Your task to perform on an android device: toggle show notifications on the lock screen Image 0: 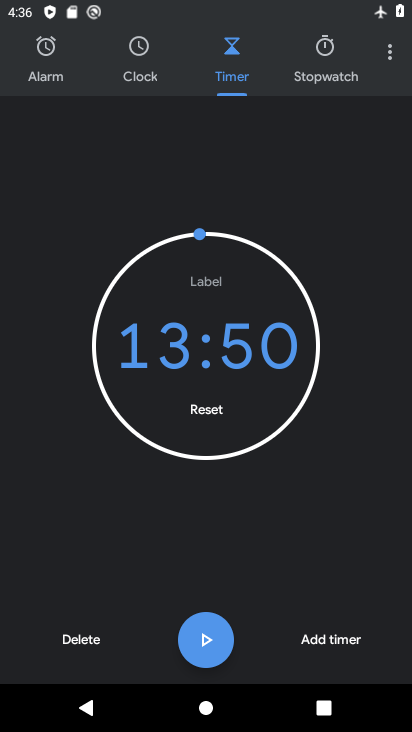
Step 0: press back button
Your task to perform on an android device: toggle show notifications on the lock screen Image 1: 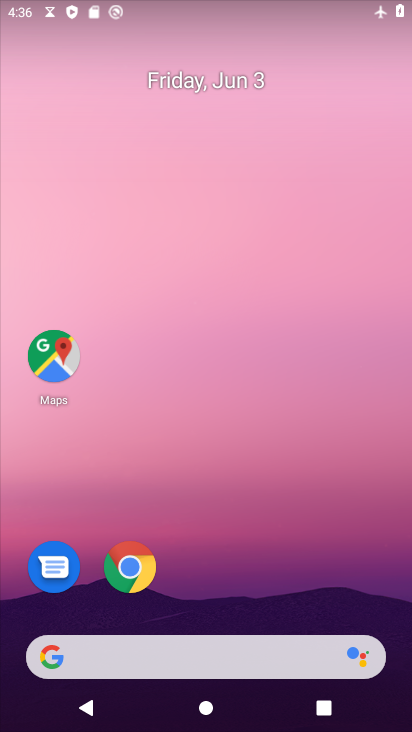
Step 1: drag from (241, 572) to (226, 114)
Your task to perform on an android device: toggle show notifications on the lock screen Image 2: 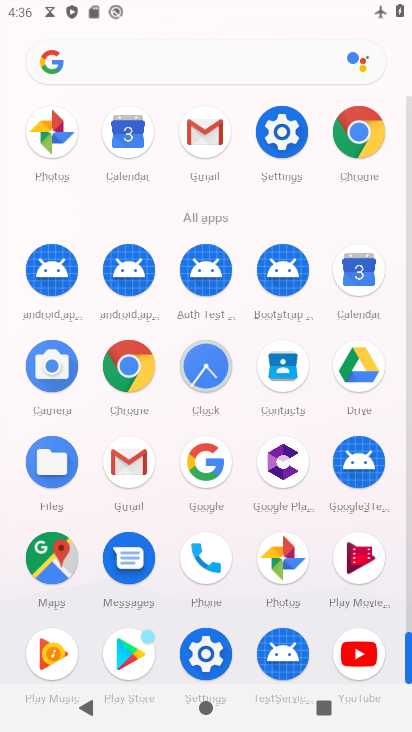
Step 2: click (281, 127)
Your task to perform on an android device: toggle show notifications on the lock screen Image 3: 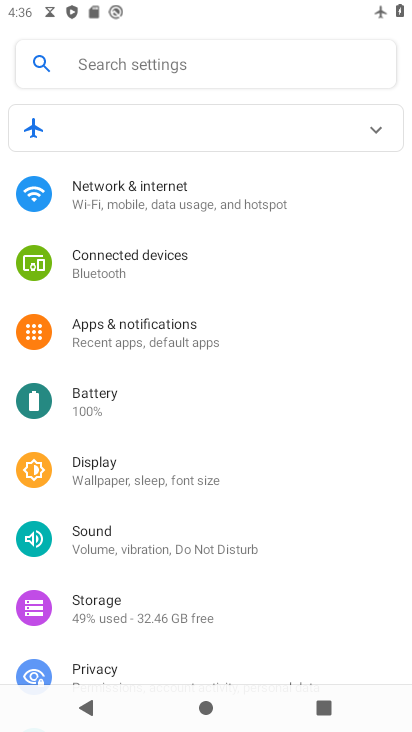
Step 3: click (137, 337)
Your task to perform on an android device: toggle show notifications on the lock screen Image 4: 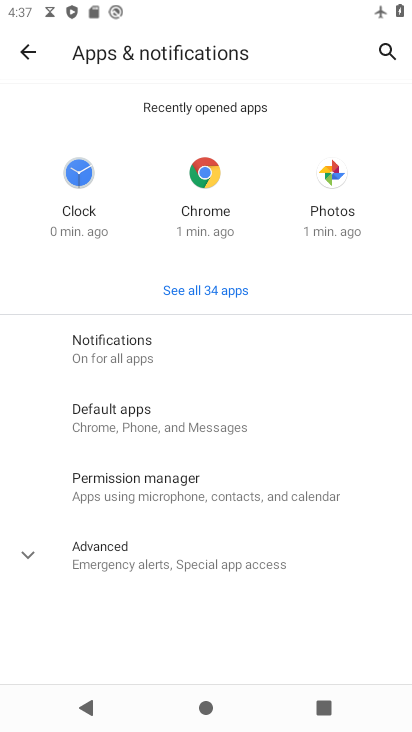
Step 4: click (149, 349)
Your task to perform on an android device: toggle show notifications on the lock screen Image 5: 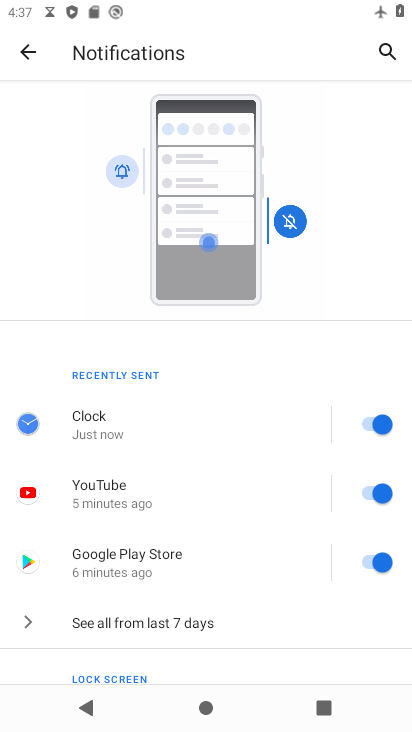
Step 5: drag from (144, 555) to (188, 374)
Your task to perform on an android device: toggle show notifications on the lock screen Image 6: 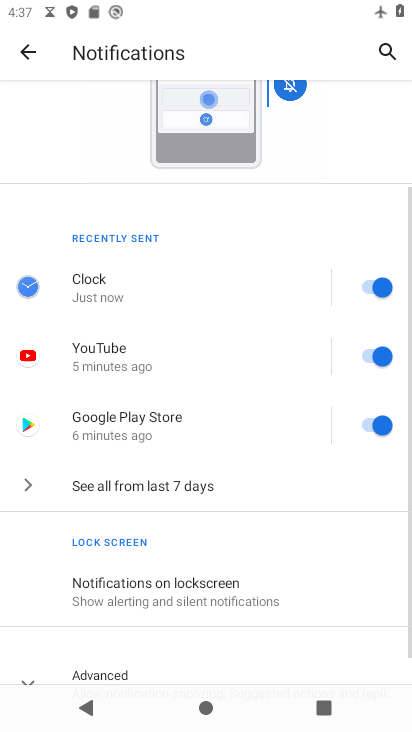
Step 6: drag from (230, 665) to (204, 155)
Your task to perform on an android device: toggle show notifications on the lock screen Image 7: 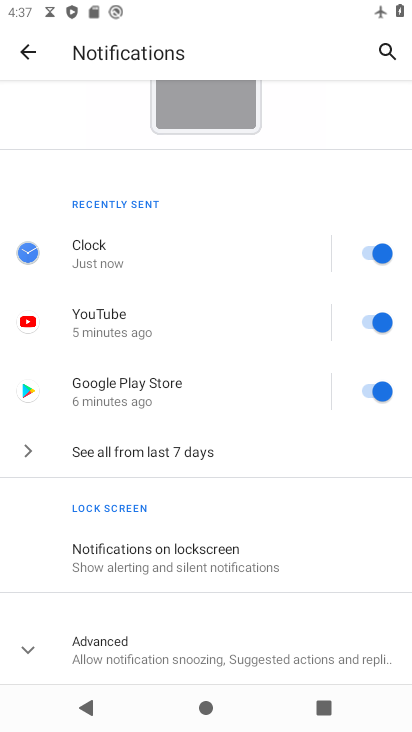
Step 7: click (185, 546)
Your task to perform on an android device: toggle show notifications on the lock screen Image 8: 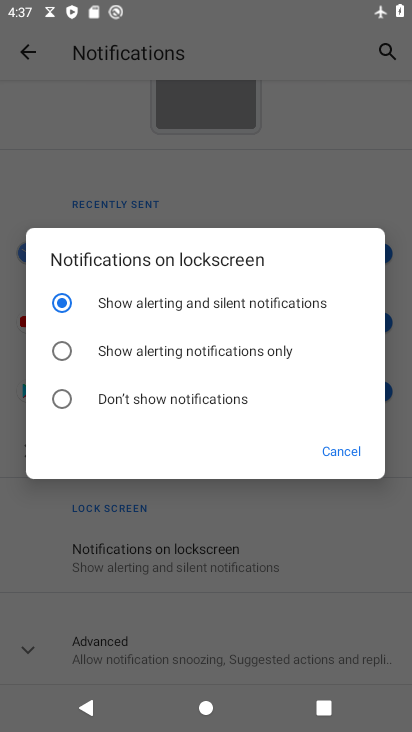
Step 8: click (53, 394)
Your task to perform on an android device: toggle show notifications on the lock screen Image 9: 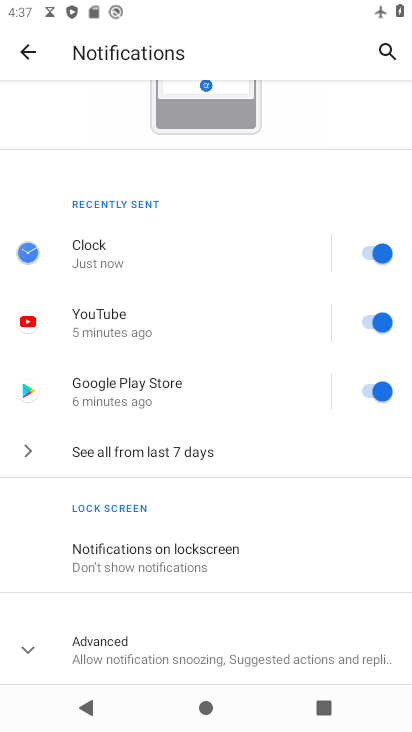
Step 9: task complete